Your task to perform on an android device: turn off picture-in-picture Image 0: 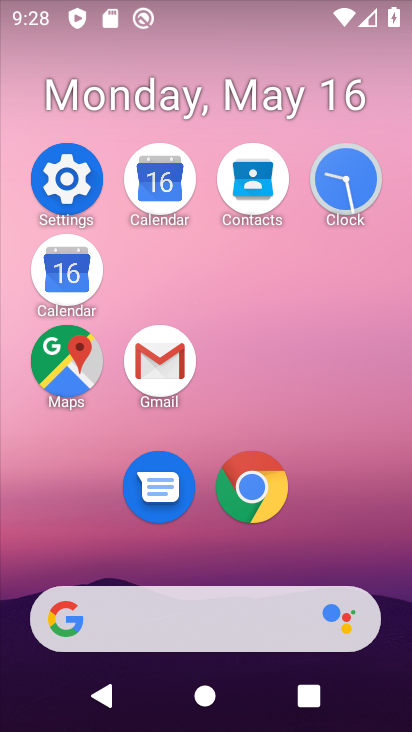
Step 0: drag from (268, 495) to (263, 454)
Your task to perform on an android device: turn off picture-in-picture Image 1: 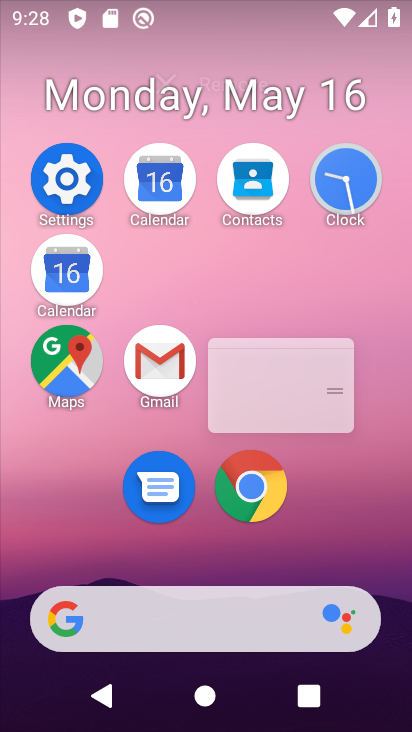
Step 1: click (268, 236)
Your task to perform on an android device: turn off picture-in-picture Image 2: 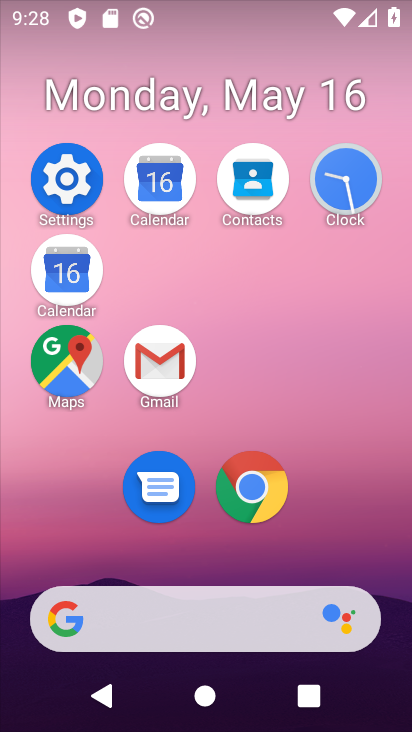
Step 2: click (262, 490)
Your task to perform on an android device: turn off picture-in-picture Image 3: 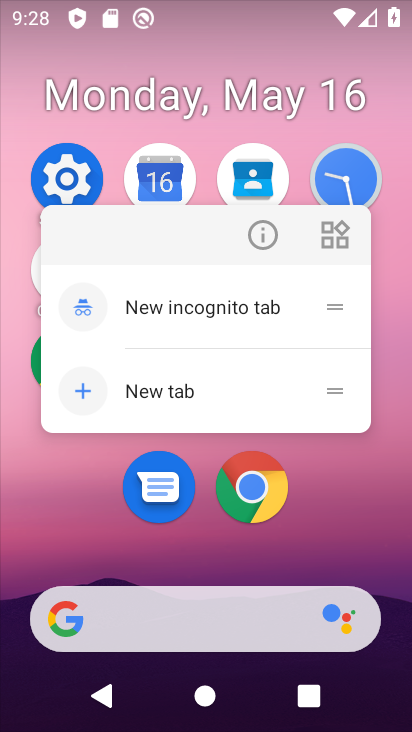
Step 3: click (264, 229)
Your task to perform on an android device: turn off picture-in-picture Image 4: 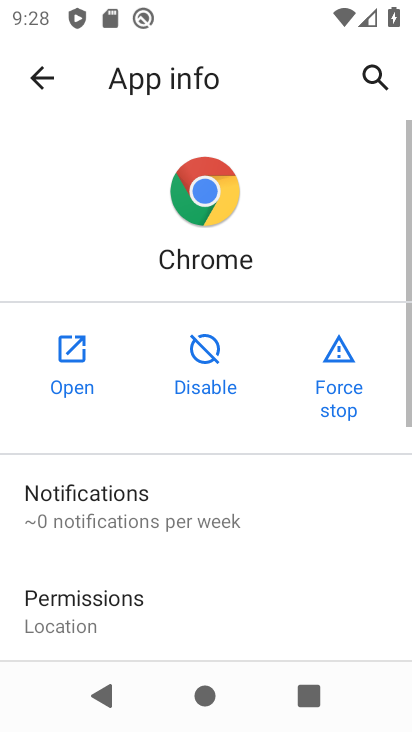
Step 4: drag from (246, 580) to (252, 134)
Your task to perform on an android device: turn off picture-in-picture Image 5: 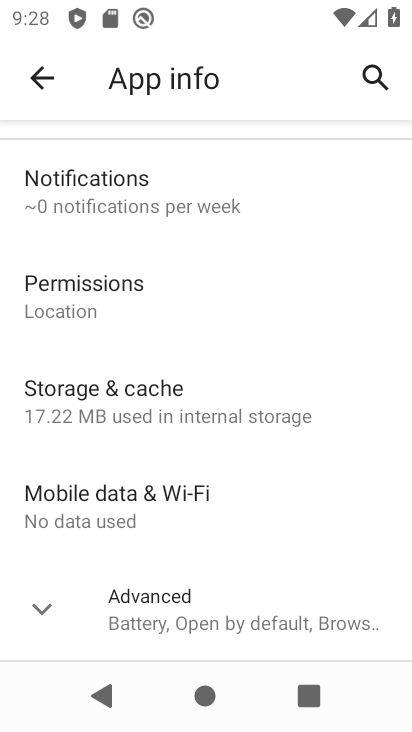
Step 5: drag from (231, 576) to (199, 191)
Your task to perform on an android device: turn off picture-in-picture Image 6: 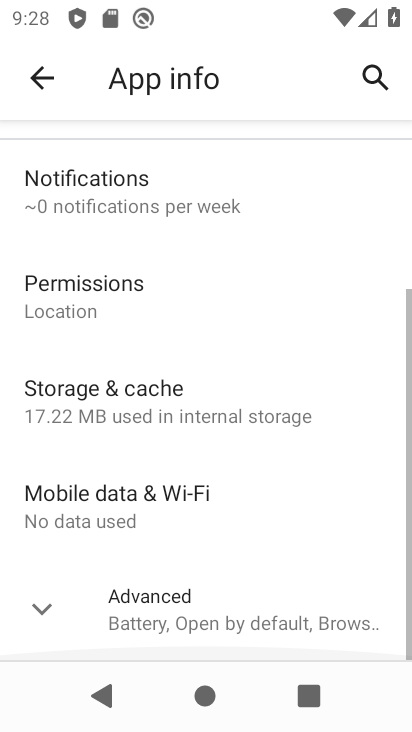
Step 6: click (210, 604)
Your task to perform on an android device: turn off picture-in-picture Image 7: 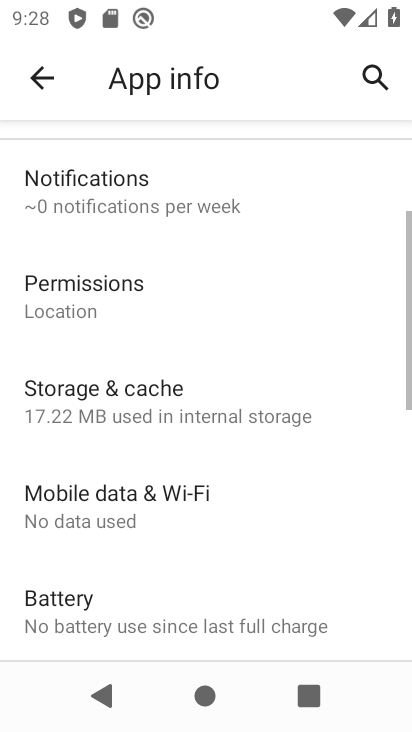
Step 7: drag from (210, 604) to (206, 76)
Your task to perform on an android device: turn off picture-in-picture Image 8: 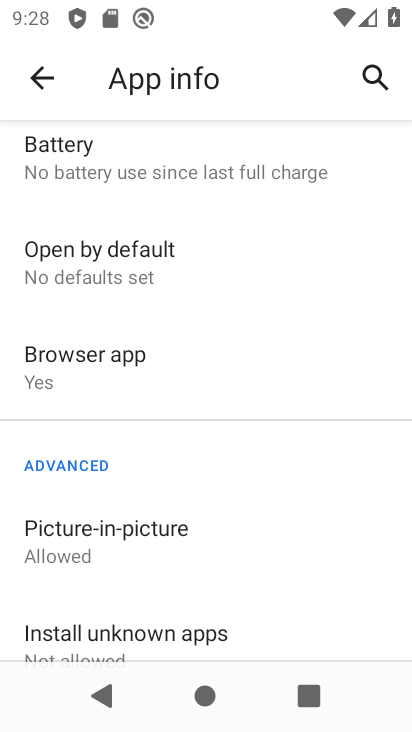
Step 8: click (179, 533)
Your task to perform on an android device: turn off picture-in-picture Image 9: 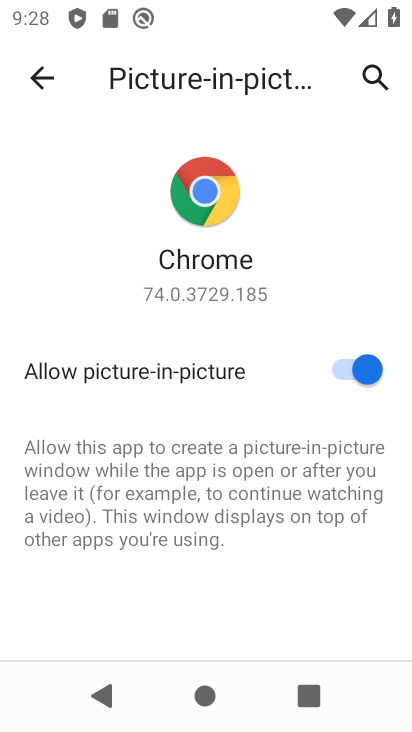
Step 9: click (340, 372)
Your task to perform on an android device: turn off picture-in-picture Image 10: 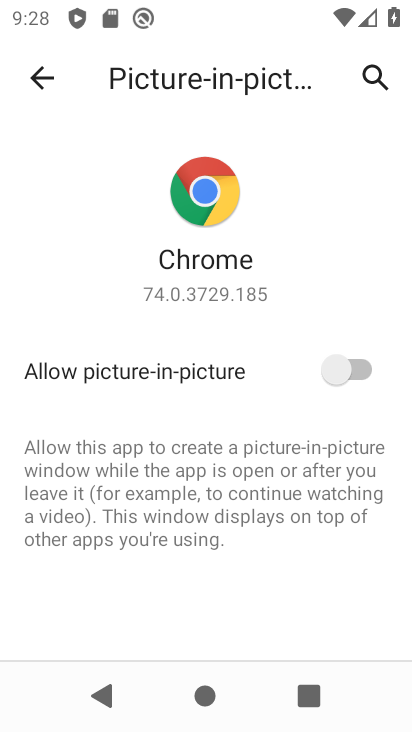
Step 10: task complete